Your task to perform on an android device: set default search engine in the chrome app Image 0: 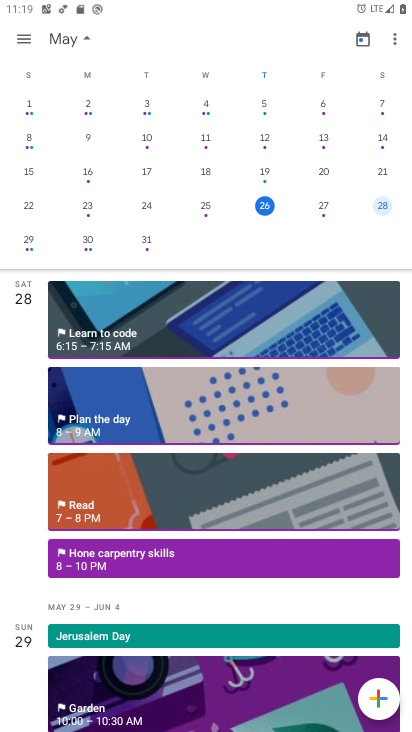
Step 0: press home button
Your task to perform on an android device: set default search engine in the chrome app Image 1: 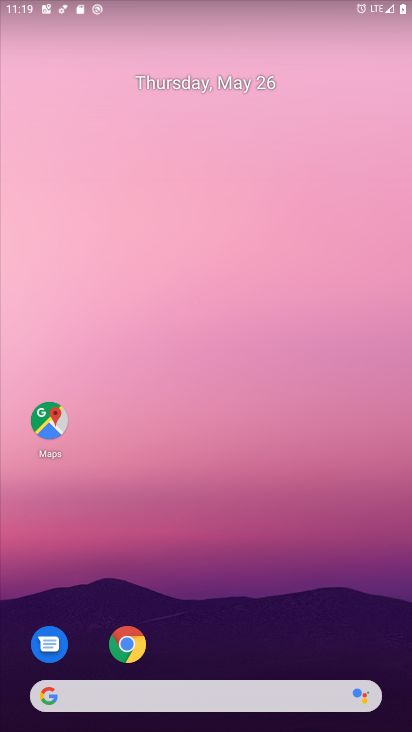
Step 1: drag from (346, 654) to (364, 259)
Your task to perform on an android device: set default search engine in the chrome app Image 2: 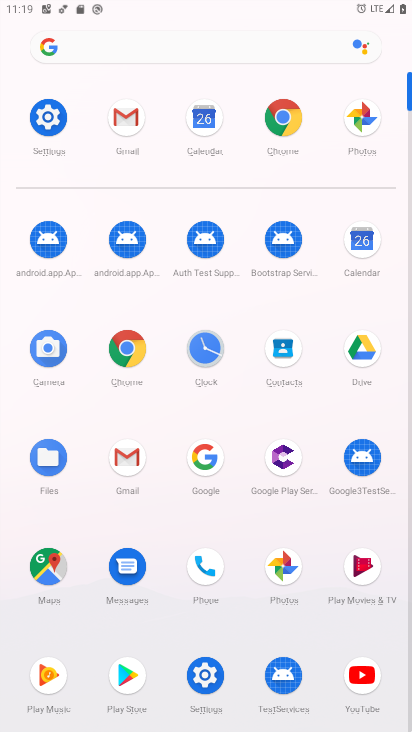
Step 2: click (120, 359)
Your task to perform on an android device: set default search engine in the chrome app Image 3: 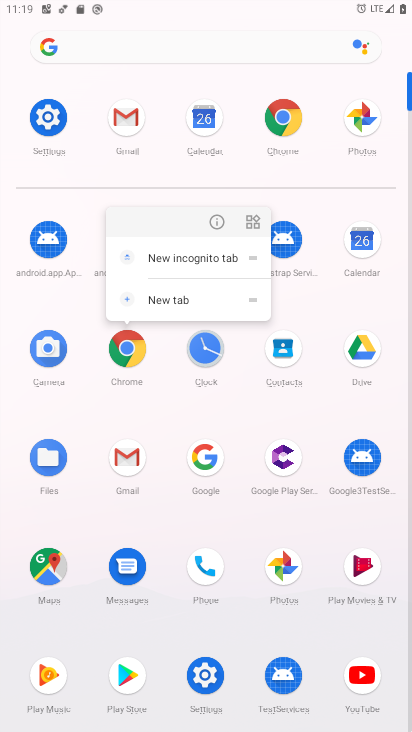
Step 3: click (120, 359)
Your task to perform on an android device: set default search engine in the chrome app Image 4: 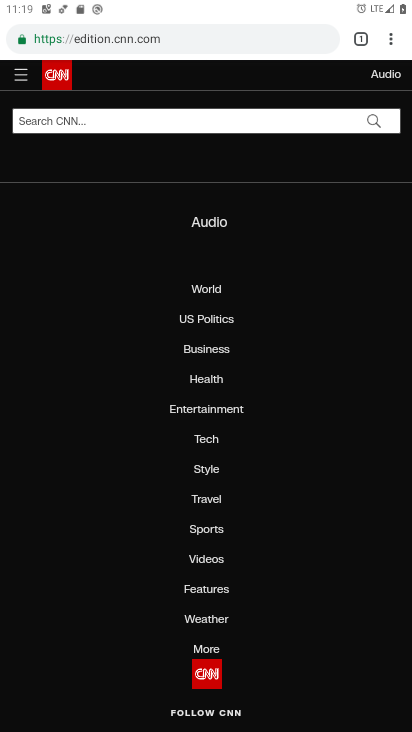
Step 4: click (393, 42)
Your task to perform on an android device: set default search engine in the chrome app Image 5: 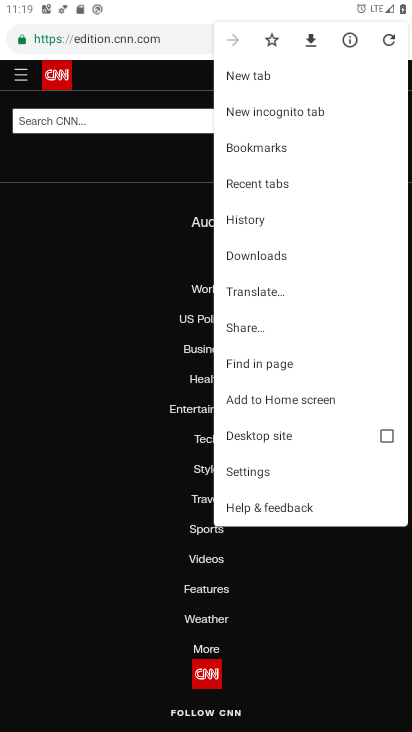
Step 5: drag from (350, 294) to (357, 202)
Your task to perform on an android device: set default search engine in the chrome app Image 6: 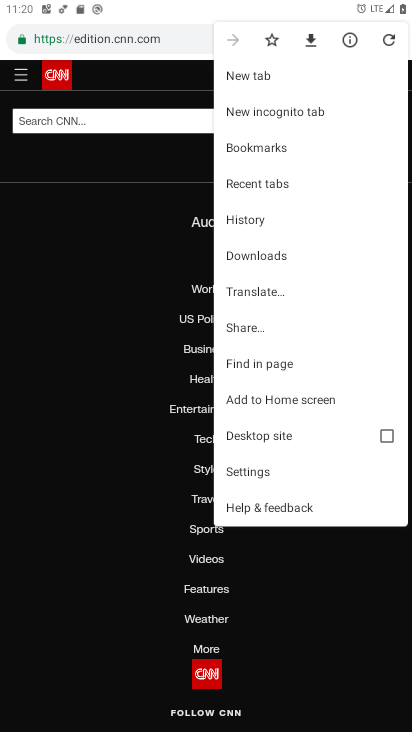
Step 6: click (288, 474)
Your task to perform on an android device: set default search engine in the chrome app Image 7: 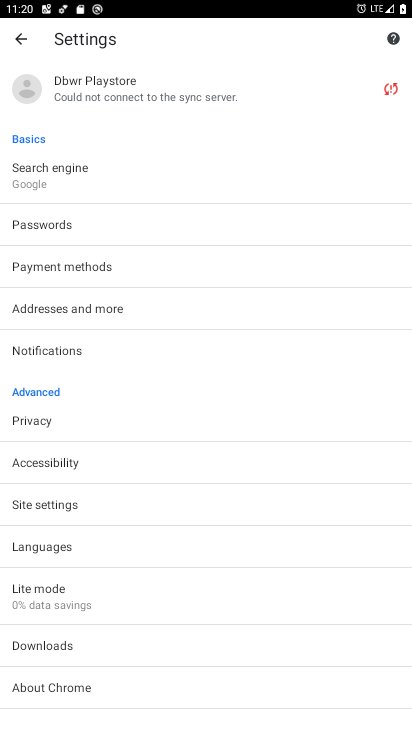
Step 7: drag from (271, 503) to (280, 433)
Your task to perform on an android device: set default search engine in the chrome app Image 8: 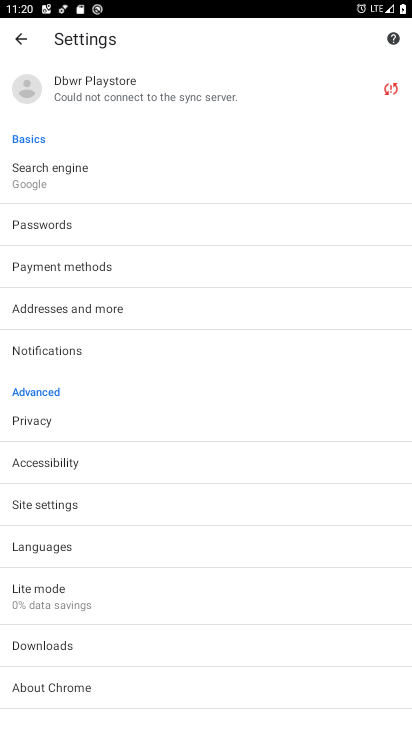
Step 8: drag from (275, 530) to (288, 459)
Your task to perform on an android device: set default search engine in the chrome app Image 9: 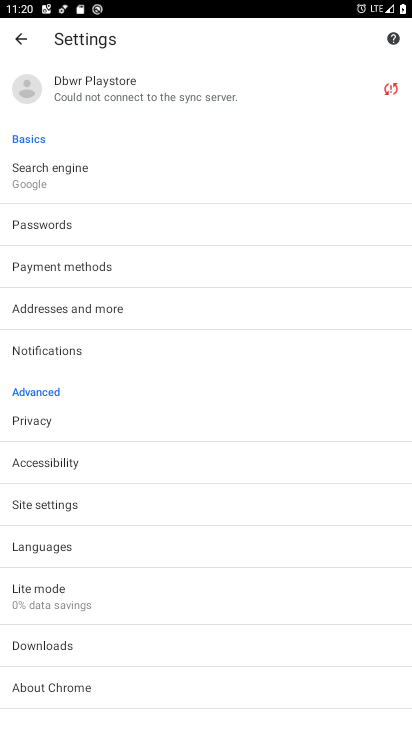
Step 9: drag from (313, 324) to (308, 400)
Your task to perform on an android device: set default search engine in the chrome app Image 10: 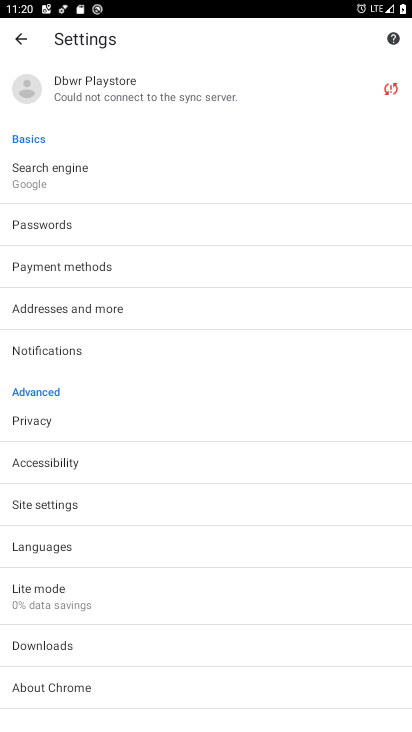
Step 10: click (219, 190)
Your task to perform on an android device: set default search engine in the chrome app Image 11: 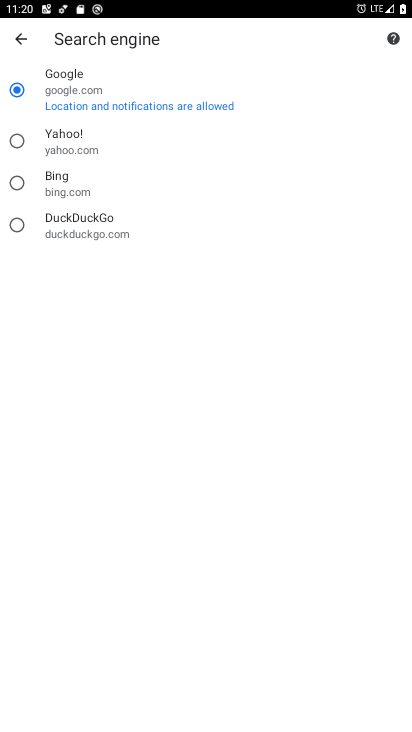
Step 11: click (75, 187)
Your task to perform on an android device: set default search engine in the chrome app Image 12: 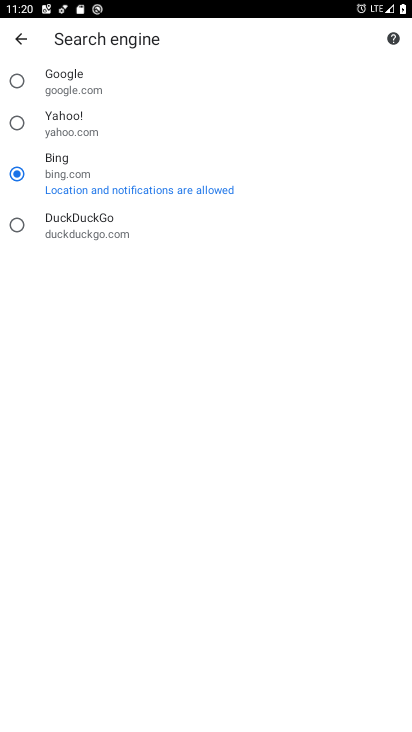
Step 12: task complete